Your task to perform on an android device: Open Youtube and go to "Your channel" Image 0: 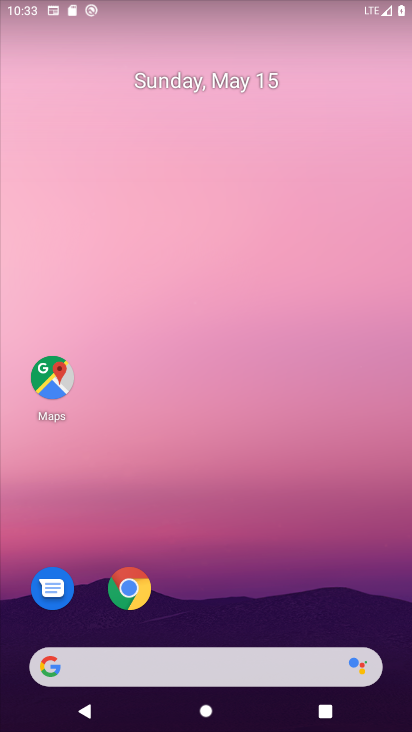
Step 0: drag from (275, 587) to (312, 73)
Your task to perform on an android device: Open Youtube and go to "Your channel" Image 1: 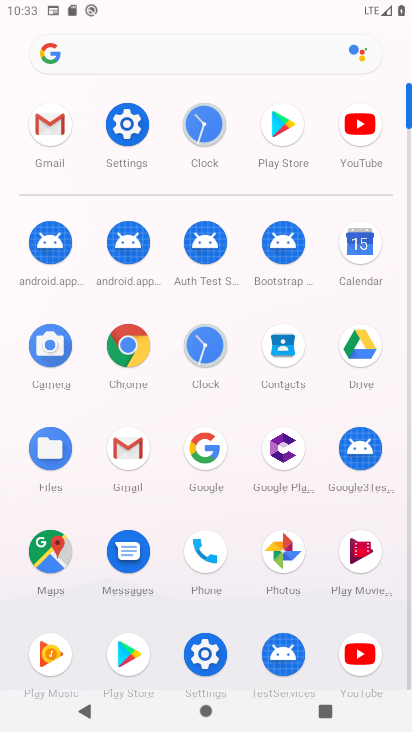
Step 1: click (363, 127)
Your task to perform on an android device: Open Youtube and go to "Your channel" Image 2: 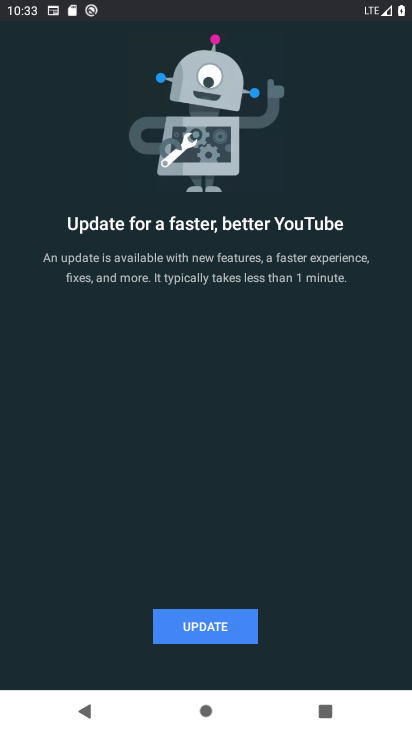
Step 2: click (203, 631)
Your task to perform on an android device: Open Youtube and go to "Your channel" Image 3: 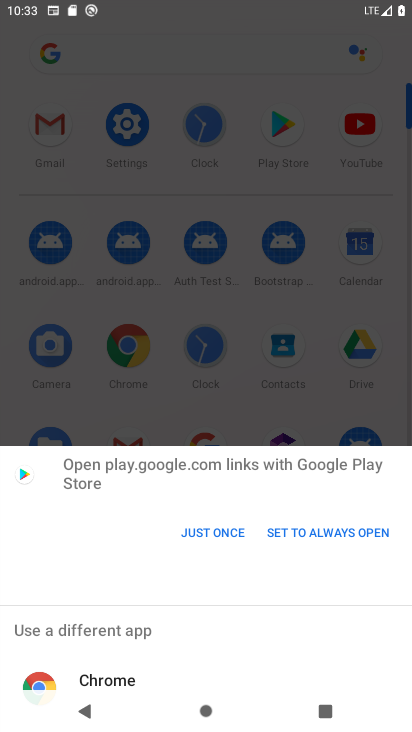
Step 3: click (208, 536)
Your task to perform on an android device: Open Youtube and go to "Your channel" Image 4: 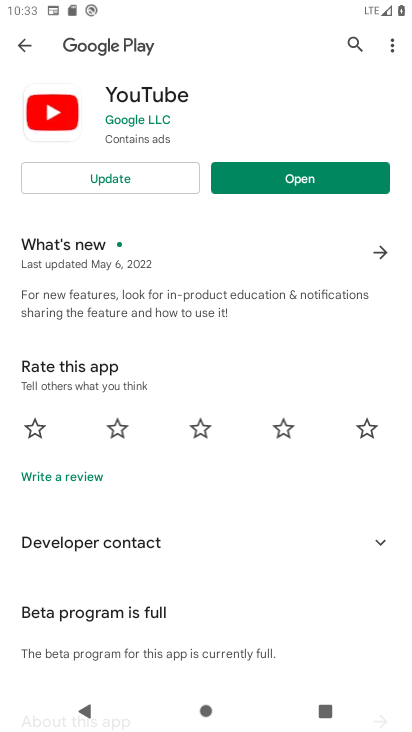
Step 4: click (182, 174)
Your task to perform on an android device: Open Youtube and go to "Your channel" Image 5: 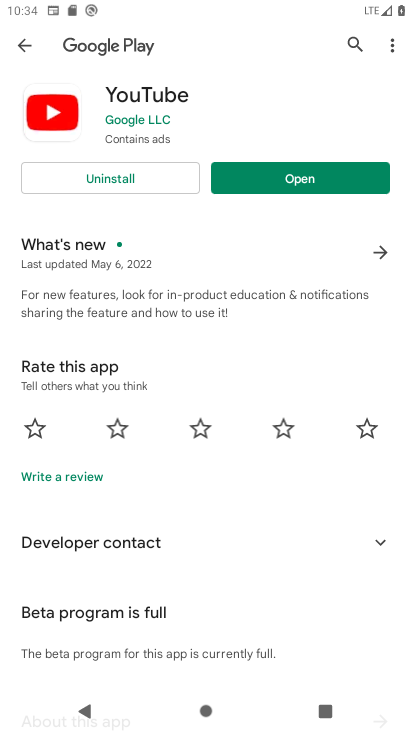
Step 5: click (266, 181)
Your task to perform on an android device: Open Youtube and go to "Your channel" Image 6: 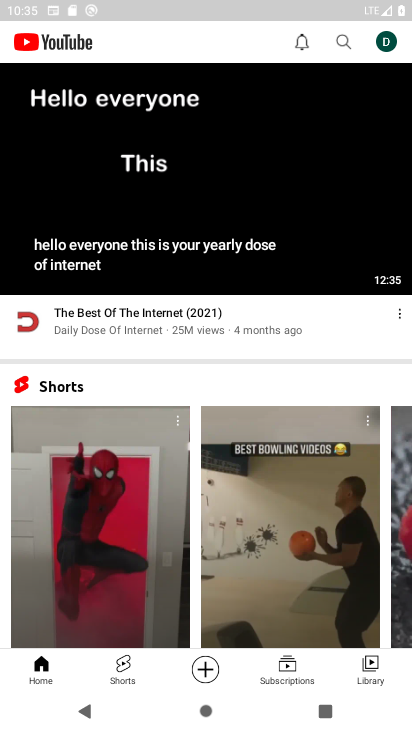
Step 6: click (387, 37)
Your task to perform on an android device: Open Youtube and go to "Your channel" Image 7: 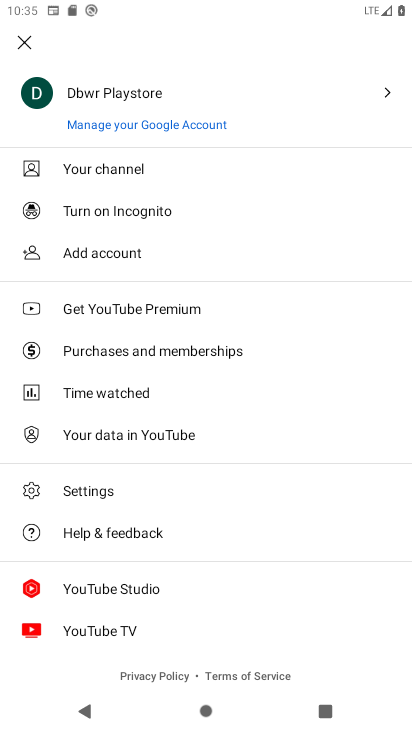
Step 7: click (142, 169)
Your task to perform on an android device: Open Youtube and go to "Your channel" Image 8: 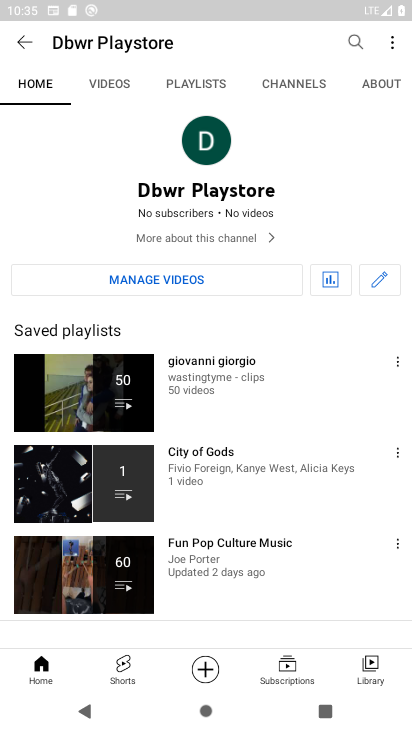
Step 8: press home button
Your task to perform on an android device: Open Youtube and go to "Your channel" Image 9: 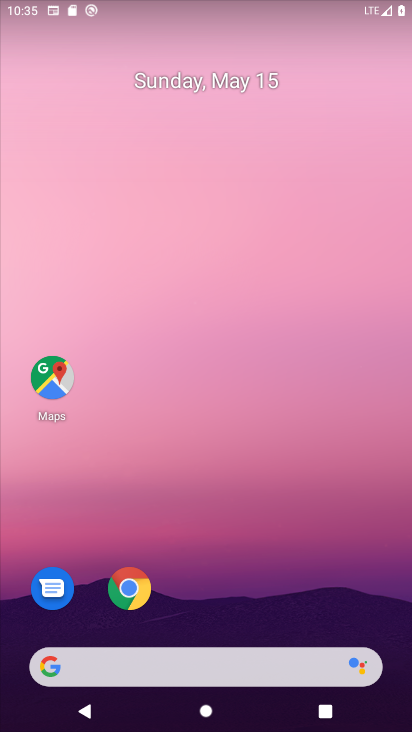
Step 9: drag from (223, 588) to (290, 67)
Your task to perform on an android device: Open Youtube and go to "Your channel" Image 10: 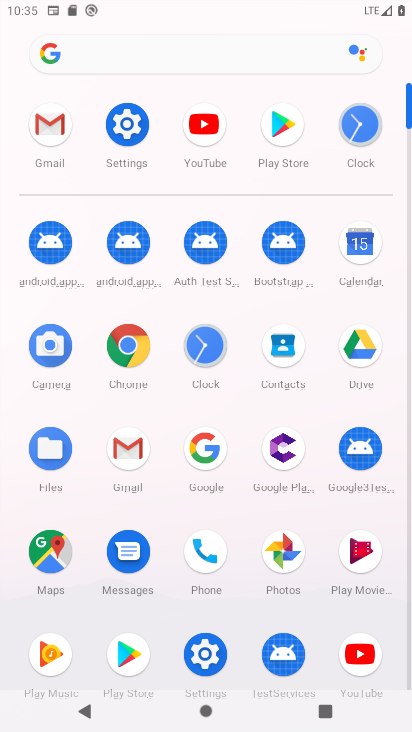
Step 10: click (201, 126)
Your task to perform on an android device: Open Youtube and go to "Your channel" Image 11: 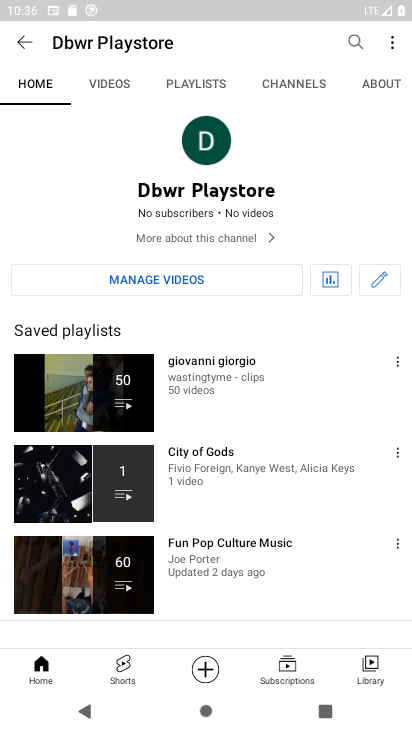
Step 11: task complete